Your task to perform on an android device: Open settings Image 0: 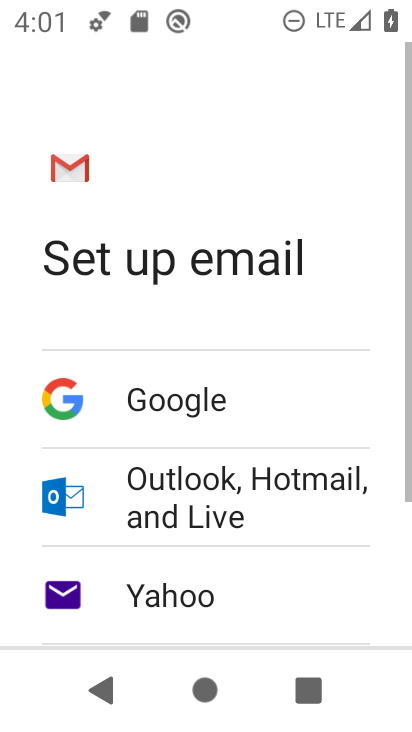
Step 0: press home button
Your task to perform on an android device: Open settings Image 1: 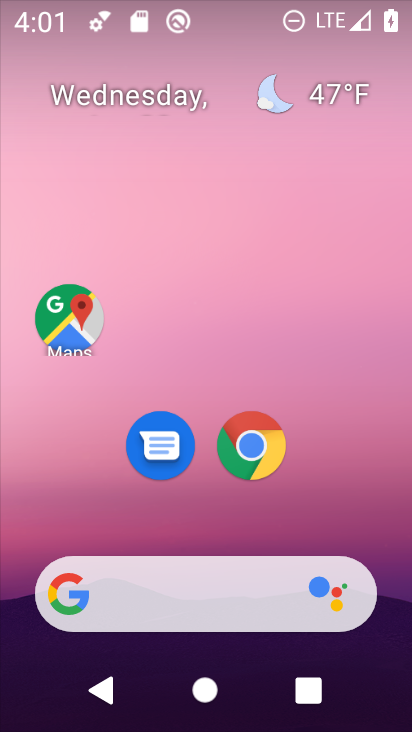
Step 1: drag from (328, 459) to (376, 138)
Your task to perform on an android device: Open settings Image 2: 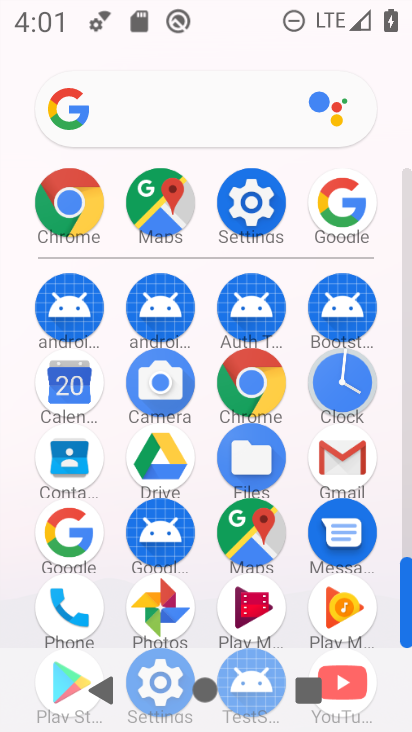
Step 2: click (264, 209)
Your task to perform on an android device: Open settings Image 3: 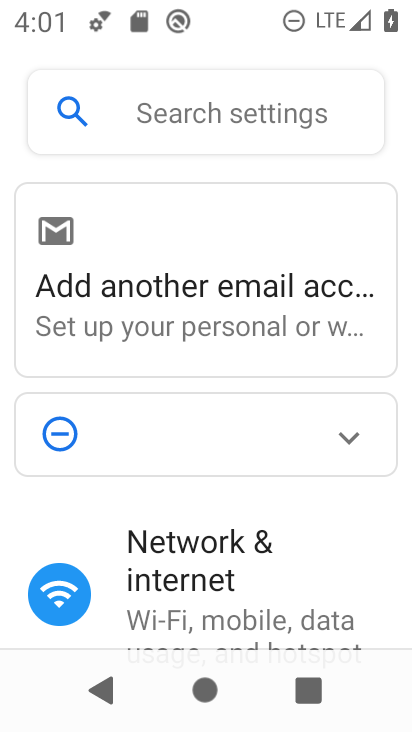
Step 3: task complete